Your task to perform on an android device: search for starred emails in the gmail app Image 0: 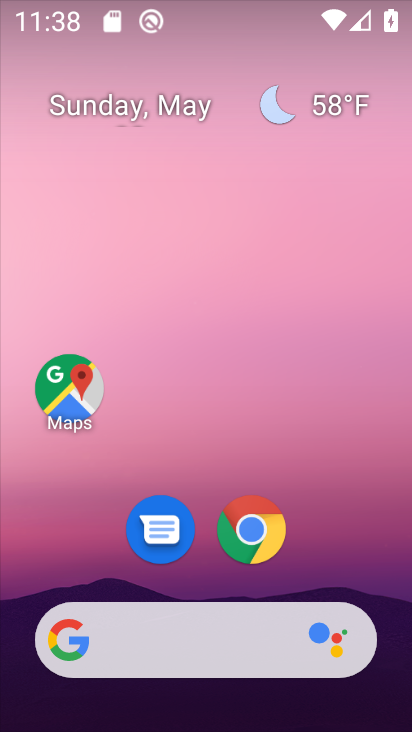
Step 0: drag from (202, 621) to (32, 3)
Your task to perform on an android device: search for starred emails in the gmail app Image 1: 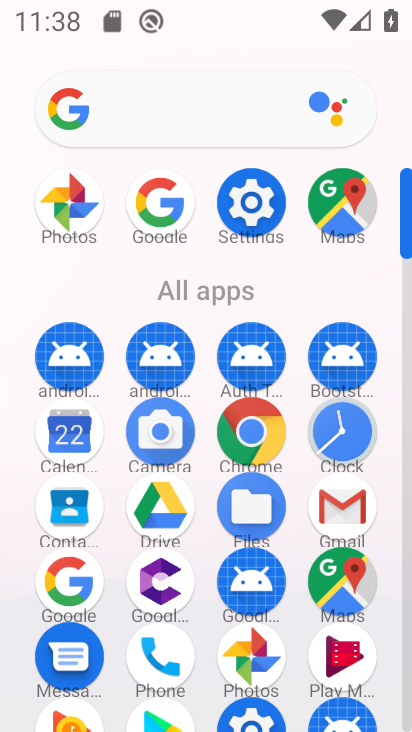
Step 1: click (350, 497)
Your task to perform on an android device: search for starred emails in the gmail app Image 2: 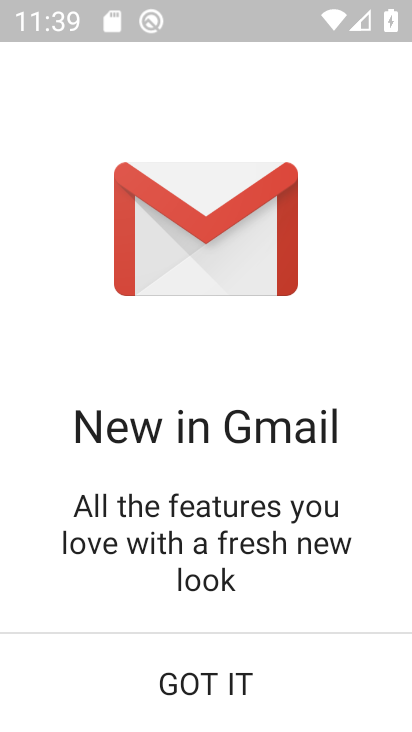
Step 2: click (234, 685)
Your task to perform on an android device: search for starred emails in the gmail app Image 3: 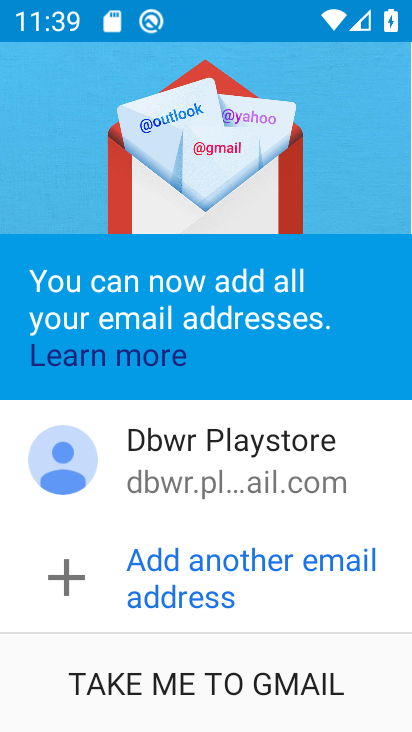
Step 3: click (213, 686)
Your task to perform on an android device: search for starred emails in the gmail app Image 4: 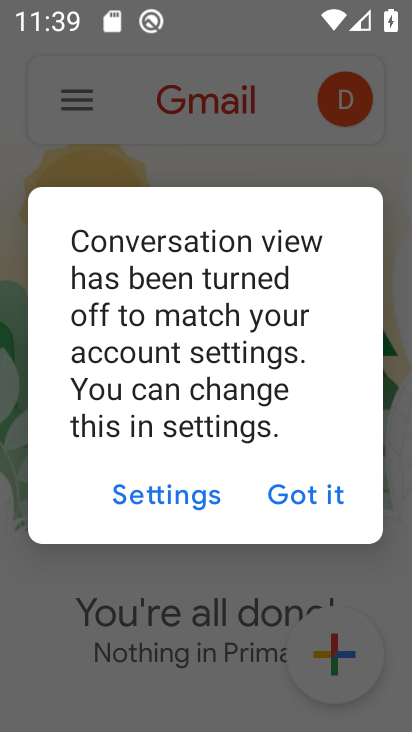
Step 4: click (332, 476)
Your task to perform on an android device: search for starred emails in the gmail app Image 5: 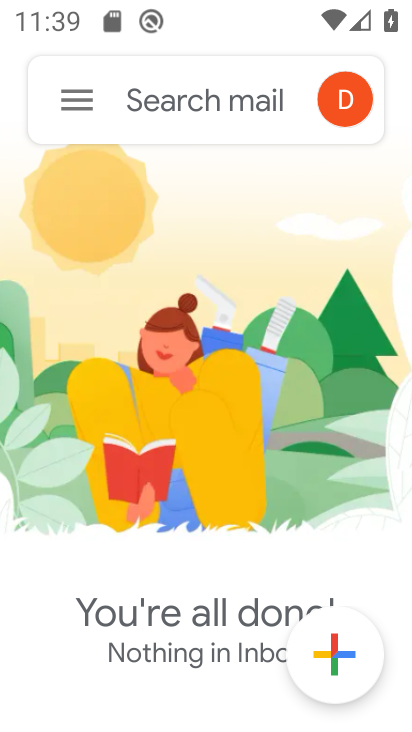
Step 5: click (88, 108)
Your task to perform on an android device: search for starred emails in the gmail app Image 6: 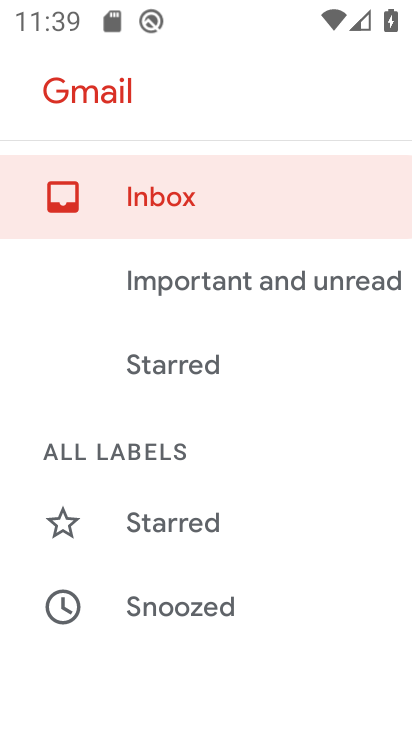
Step 6: click (212, 382)
Your task to perform on an android device: search for starred emails in the gmail app Image 7: 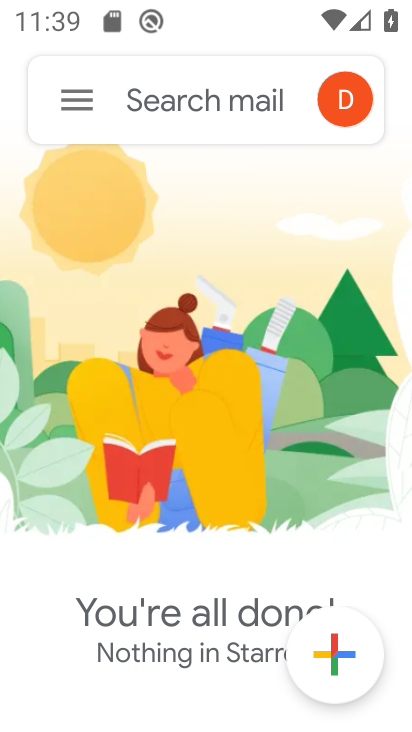
Step 7: task complete